Your task to perform on an android device: check out phone information Image 0: 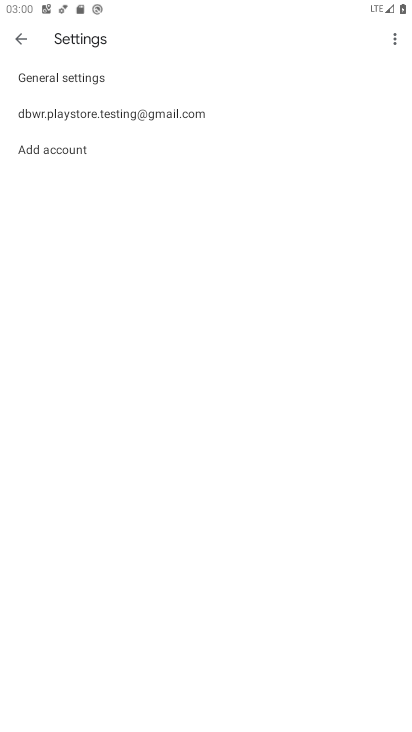
Step 0: press home button
Your task to perform on an android device: check out phone information Image 1: 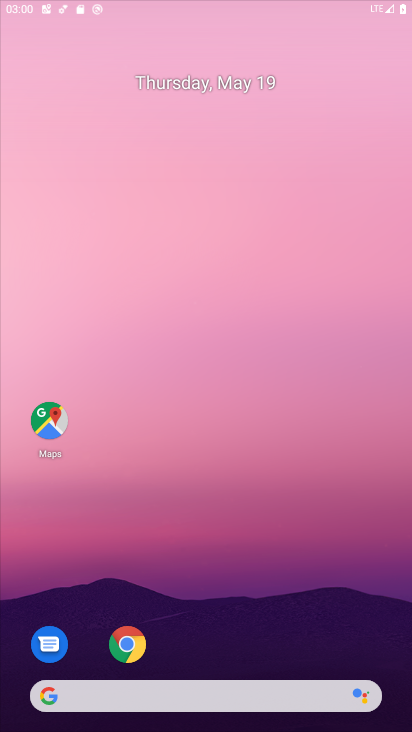
Step 1: drag from (235, 569) to (264, 225)
Your task to perform on an android device: check out phone information Image 2: 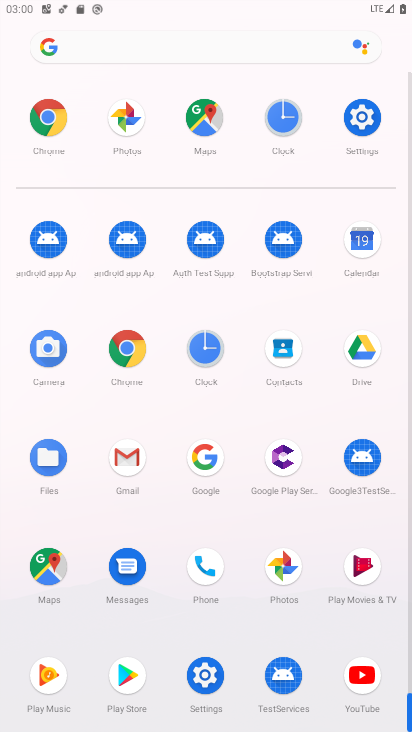
Step 2: click (195, 683)
Your task to perform on an android device: check out phone information Image 3: 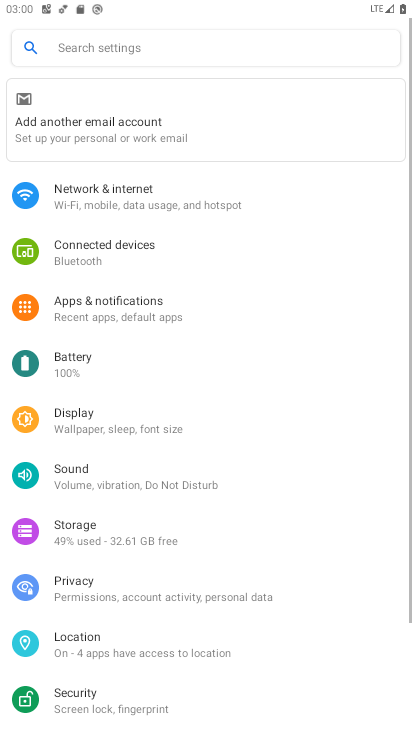
Step 3: drag from (219, 608) to (298, 114)
Your task to perform on an android device: check out phone information Image 4: 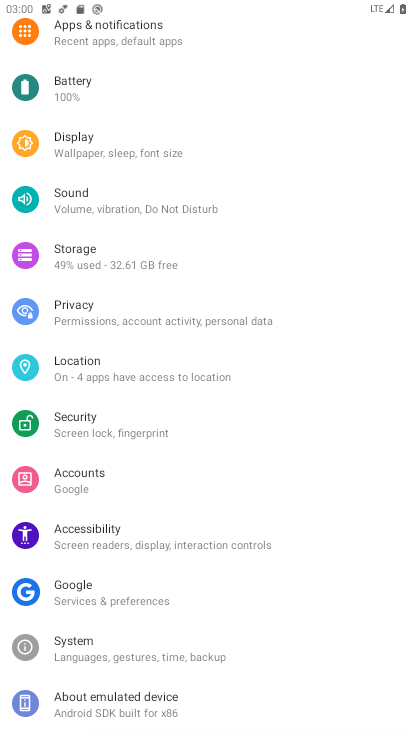
Step 4: click (143, 694)
Your task to perform on an android device: check out phone information Image 5: 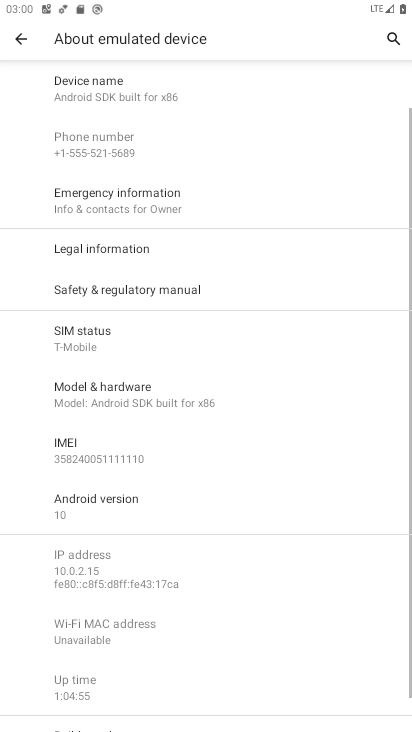
Step 5: task complete